Your task to perform on an android device: Go to ESPN.com Image 0: 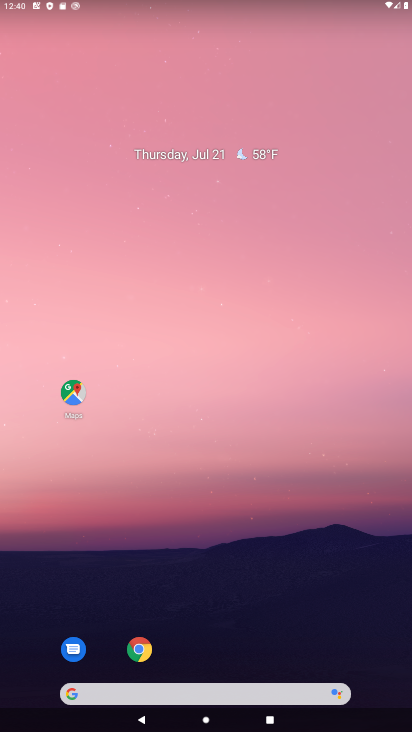
Step 0: click (138, 650)
Your task to perform on an android device: Go to ESPN.com Image 1: 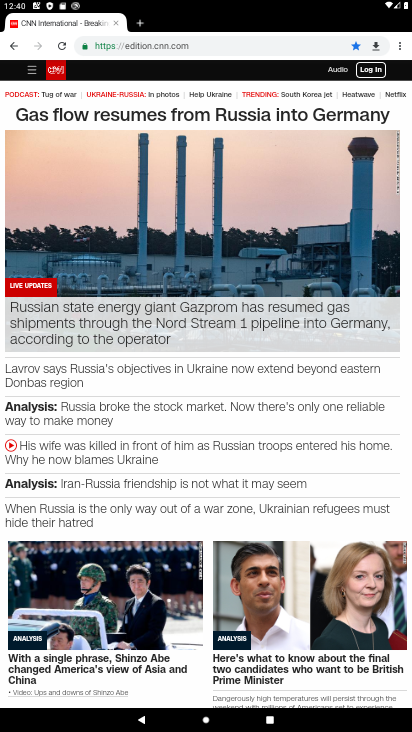
Step 1: click (228, 45)
Your task to perform on an android device: Go to ESPN.com Image 2: 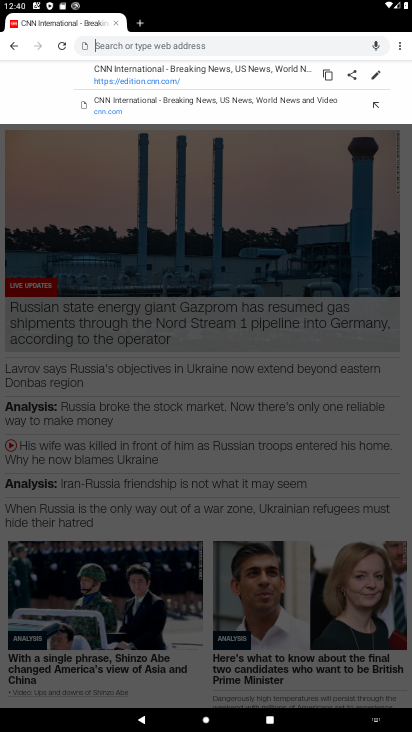
Step 2: type "ESPN.com"
Your task to perform on an android device: Go to ESPN.com Image 3: 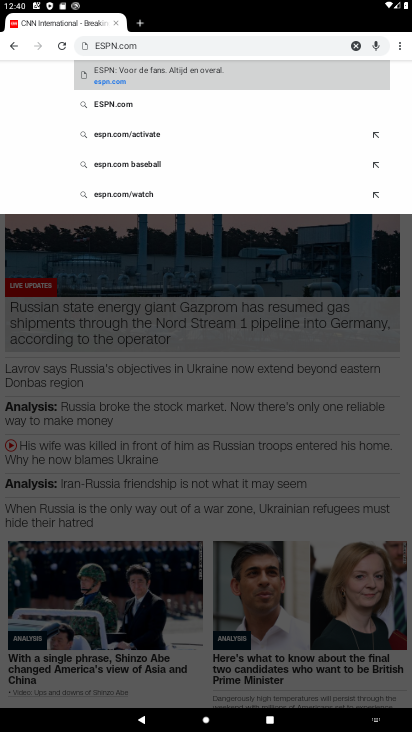
Step 3: click (115, 68)
Your task to perform on an android device: Go to ESPN.com Image 4: 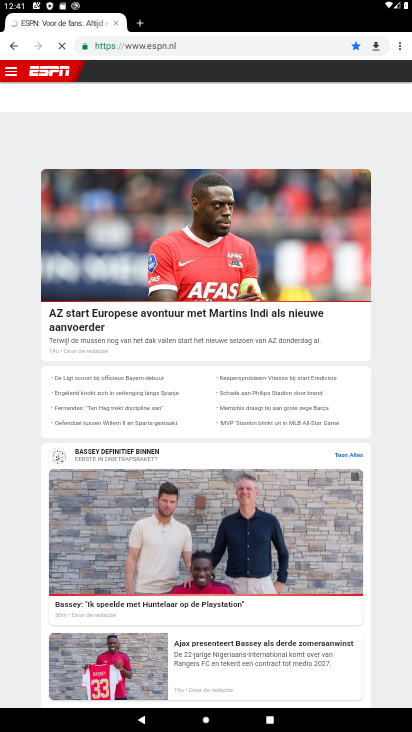
Step 4: drag from (233, 455) to (226, 95)
Your task to perform on an android device: Go to ESPN.com Image 5: 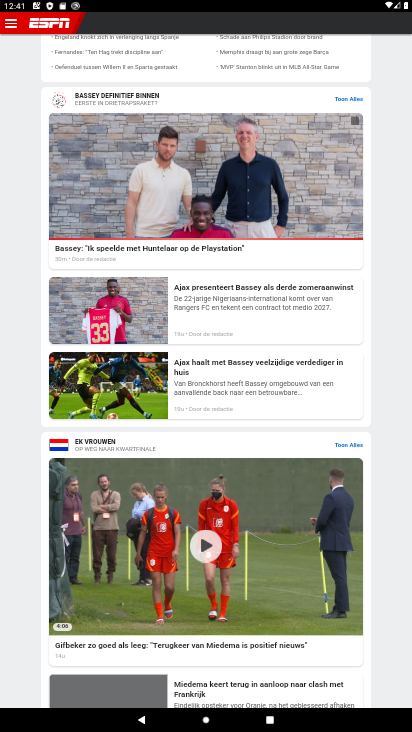
Step 5: drag from (244, 441) to (226, 85)
Your task to perform on an android device: Go to ESPN.com Image 6: 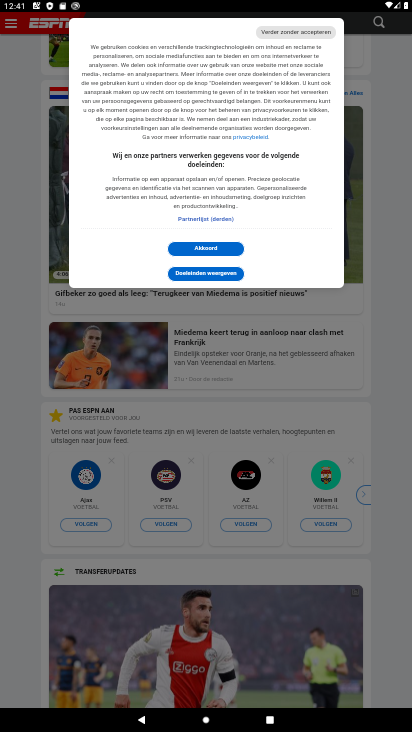
Step 6: click (197, 245)
Your task to perform on an android device: Go to ESPN.com Image 7: 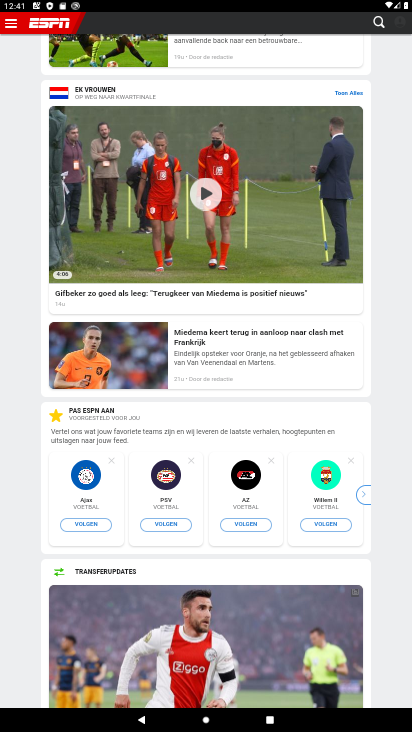
Step 7: task complete